Your task to perform on an android device: Clear the cart on ebay.com. Search for razer naga on ebay.com, select the first entry, add it to the cart, then select checkout. Image 0: 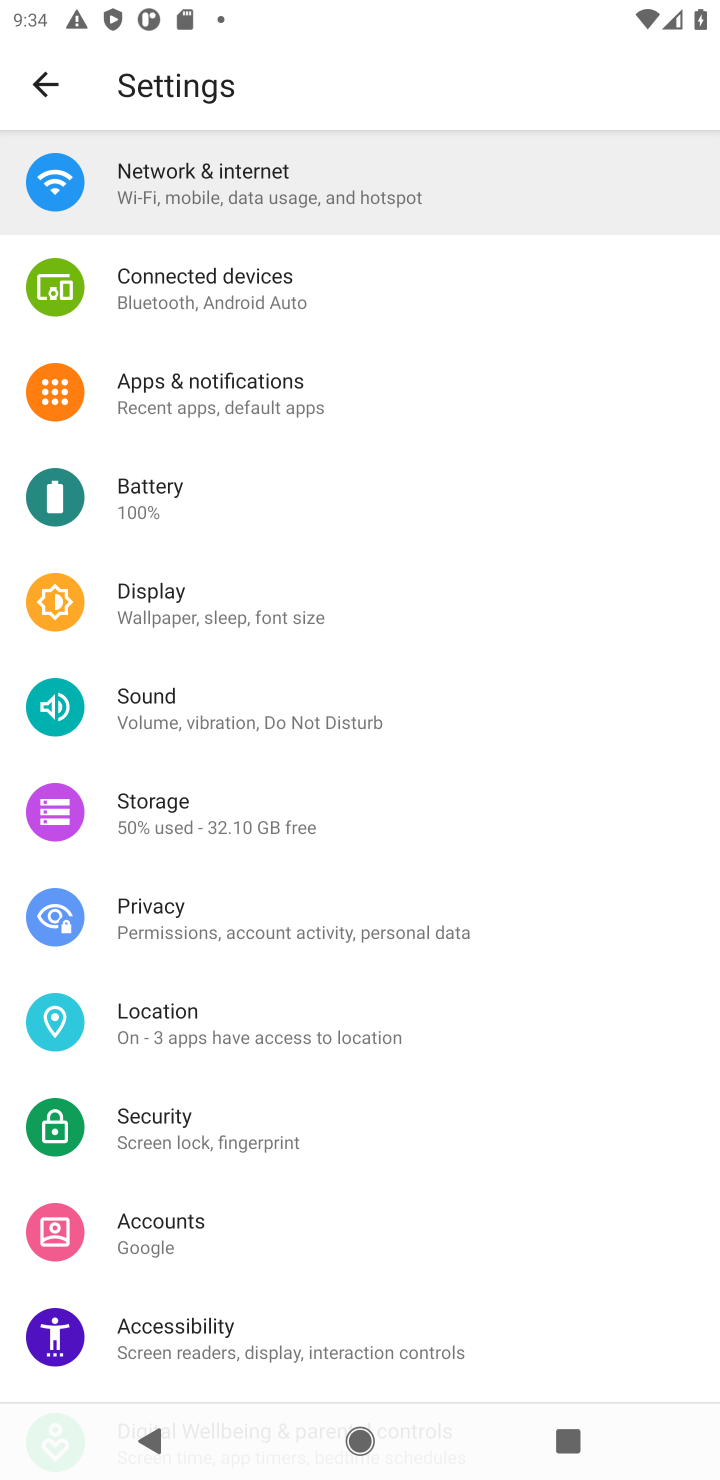
Step 0: press home button
Your task to perform on an android device: Clear the cart on ebay.com. Search for razer naga on ebay.com, select the first entry, add it to the cart, then select checkout. Image 1: 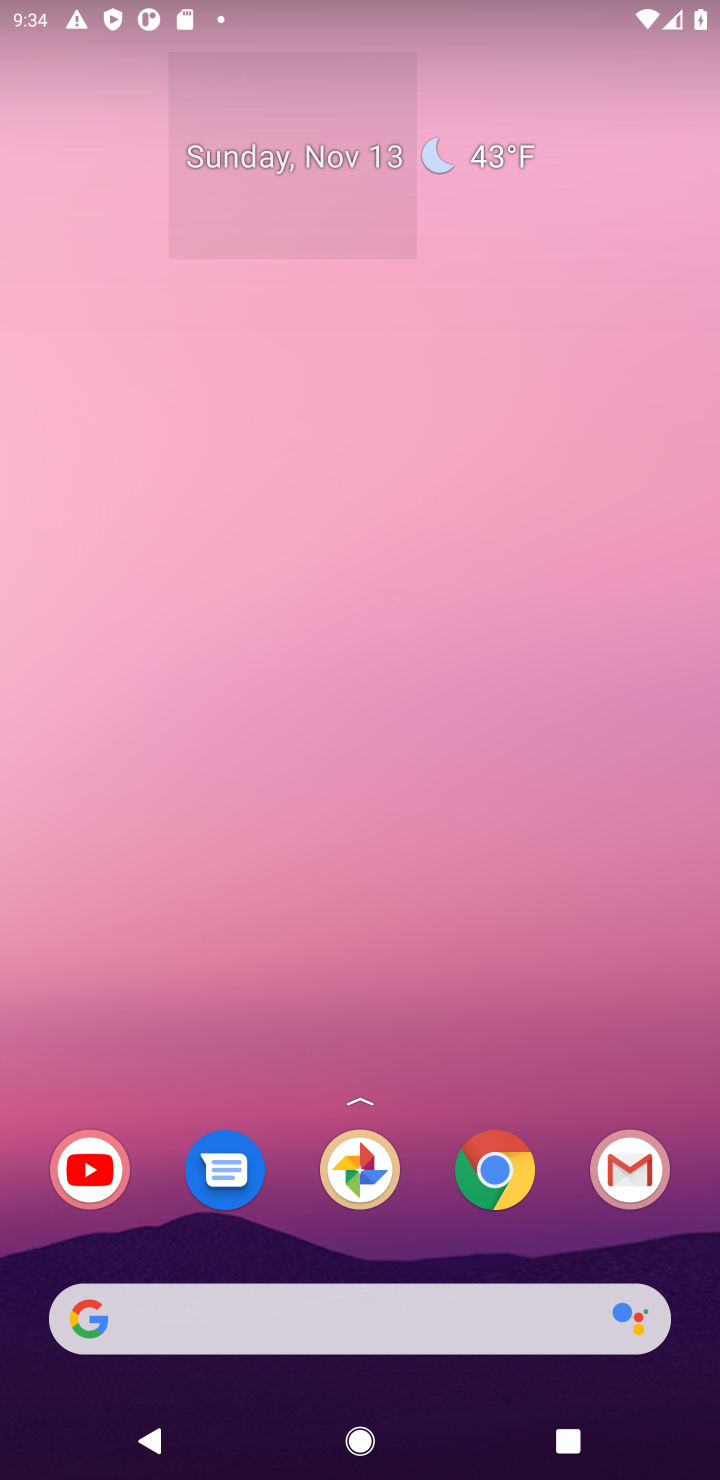
Step 1: drag from (167, 941) to (73, 9)
Your task to perform on an android device: Clear the cart on ebay.com. Search for razer naga on ebay.com, select the first entry, add it to the cart, then select checkout. Image 2: 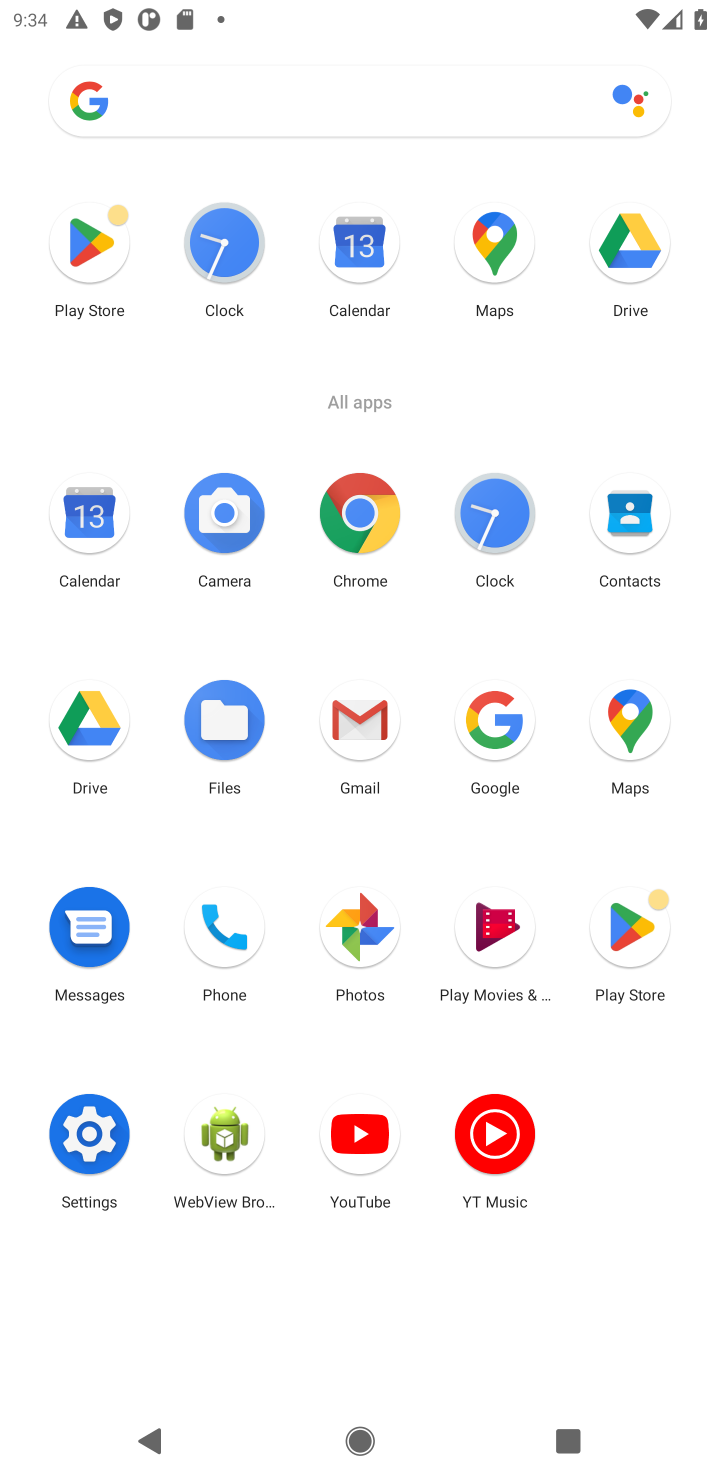
Step 2: click (360, 520)
Your task to perform on an android device: Clear the cart on ebay.com. Search for razer naga on ebay.com, select the first entry, add it to the cart, then select checkout. Image 3: 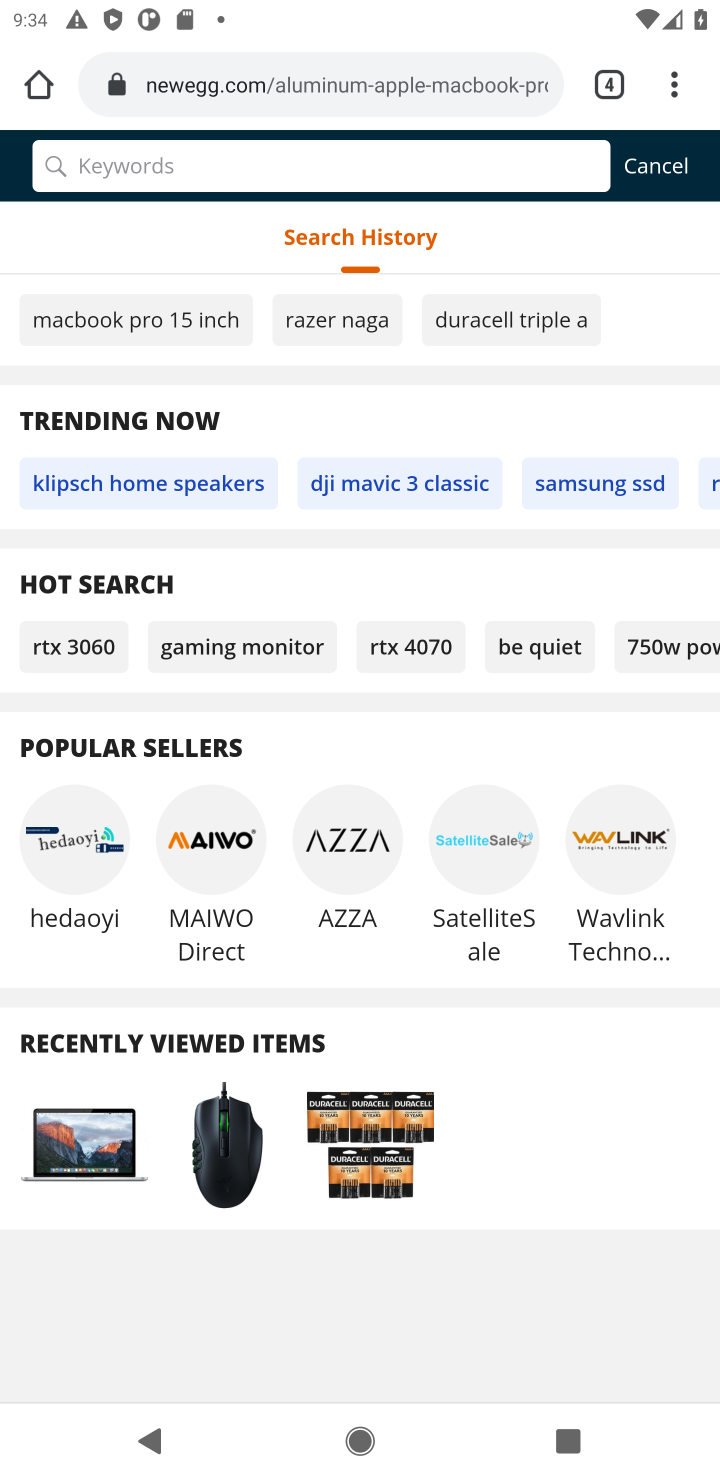
Step 3: click (312, 55)
Your task to perform on an android device: Clear the cart on ebay.com. Search for razer naga on ebay.com, select the first entry, add it to the cart, then select checkout. Image 4: 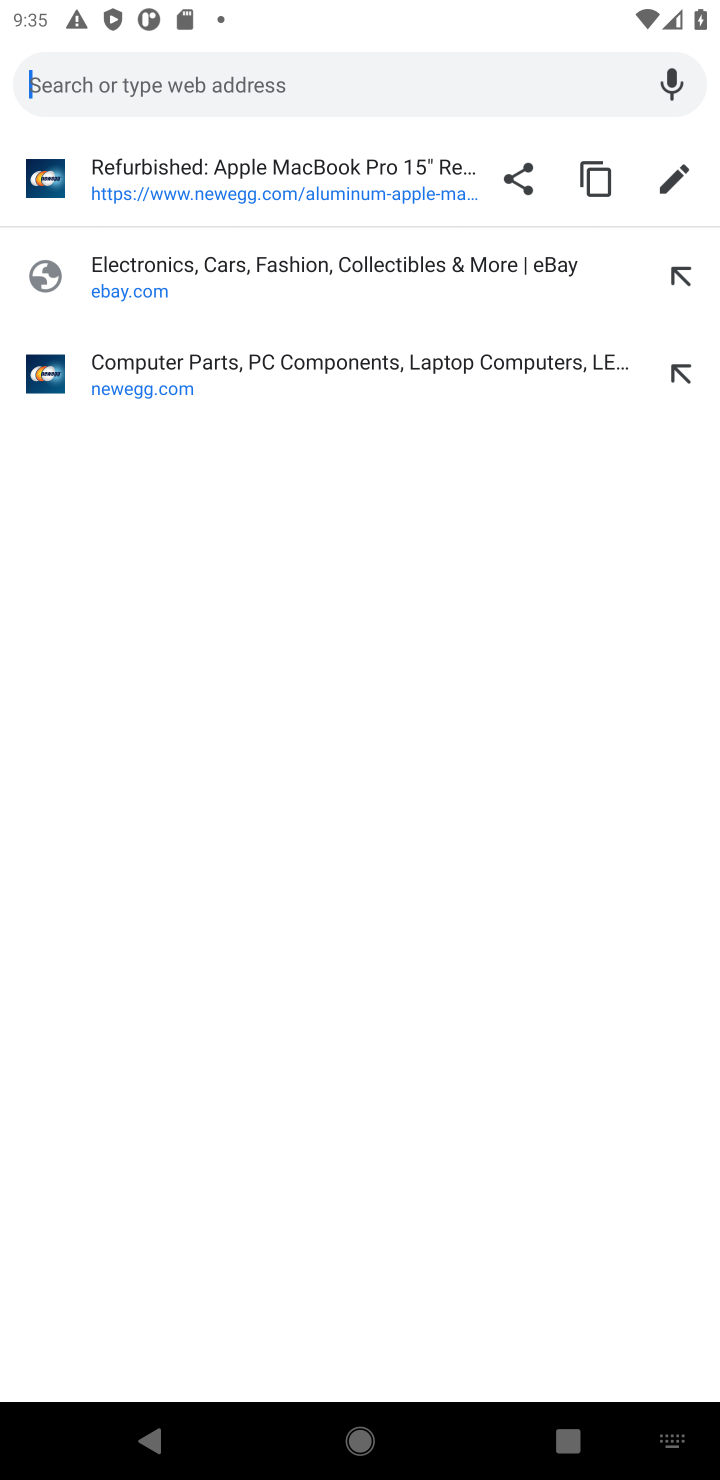
Step 4: type "ebay.com"
Your task to perform on an android device: Clear the cart on ebay.com. Search for razer naga on ebay.com, select the first entry, add it to the cart, then select checkout. Image 5: 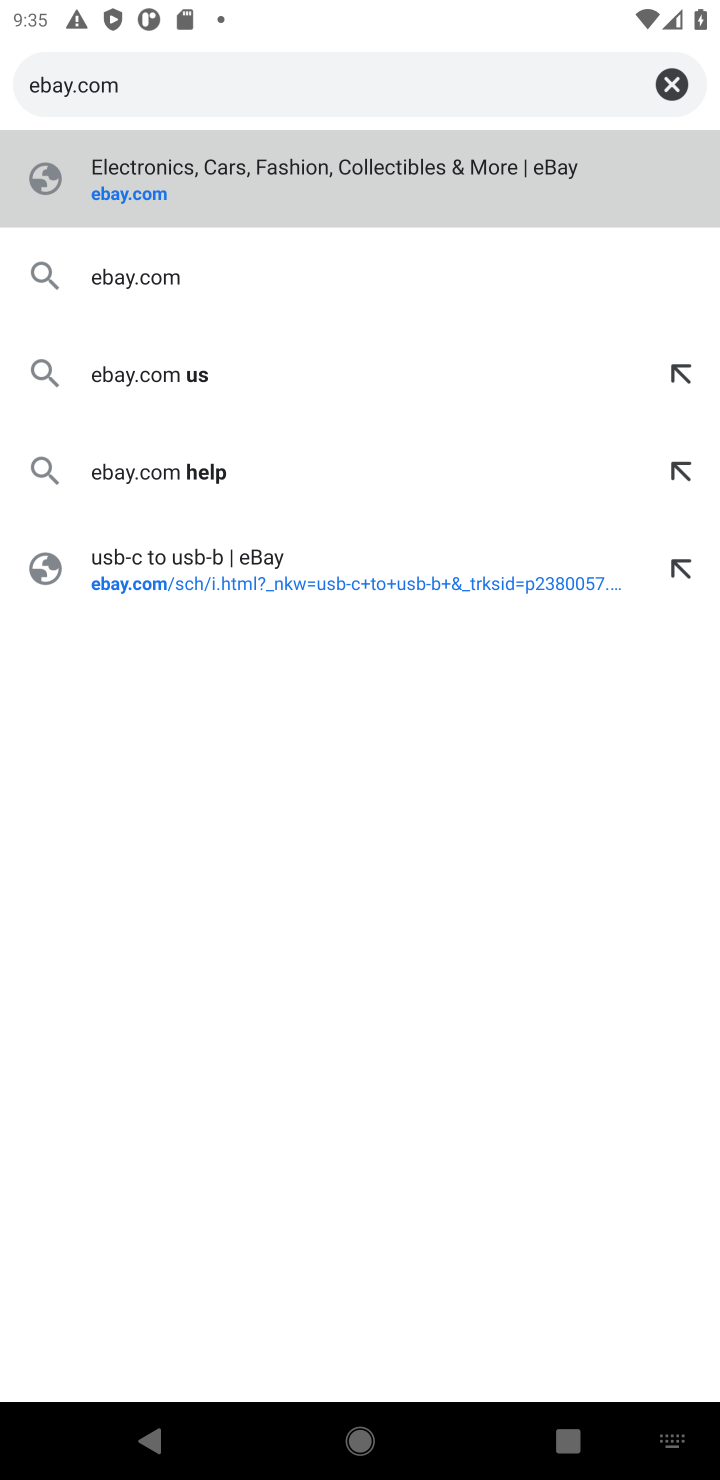
Step 5: press enter
Your task to perform on an android device: Clear the cart on ebay.com. Search for razer naga on ebay.com, select the first entry, add it to the cart, then select checkout. Image 6: 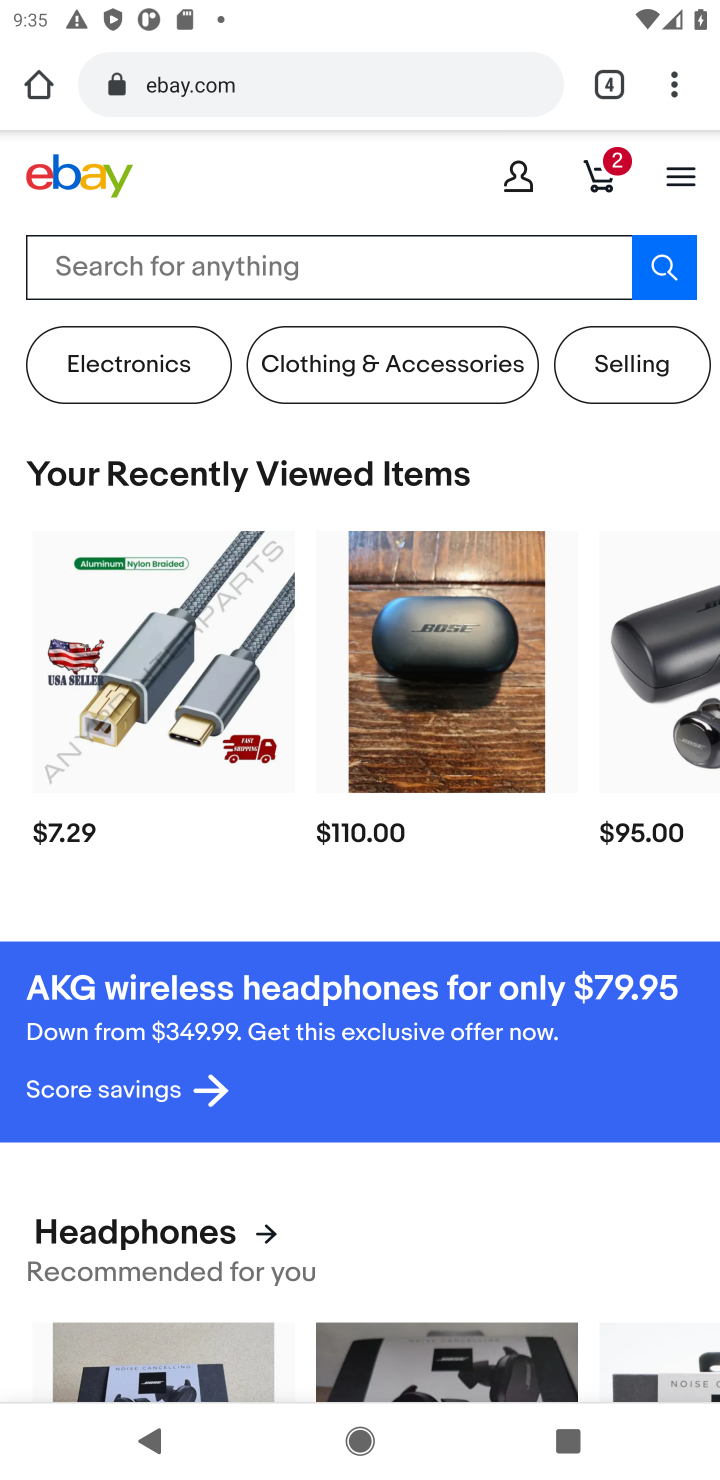
Step 6: click (152, 274)
Your task to perform on an android device: Clear the cart on ebay.com. Search for razer naga on ebay.com, select the first entry, add it to the cart, then select checkout. Image 7: 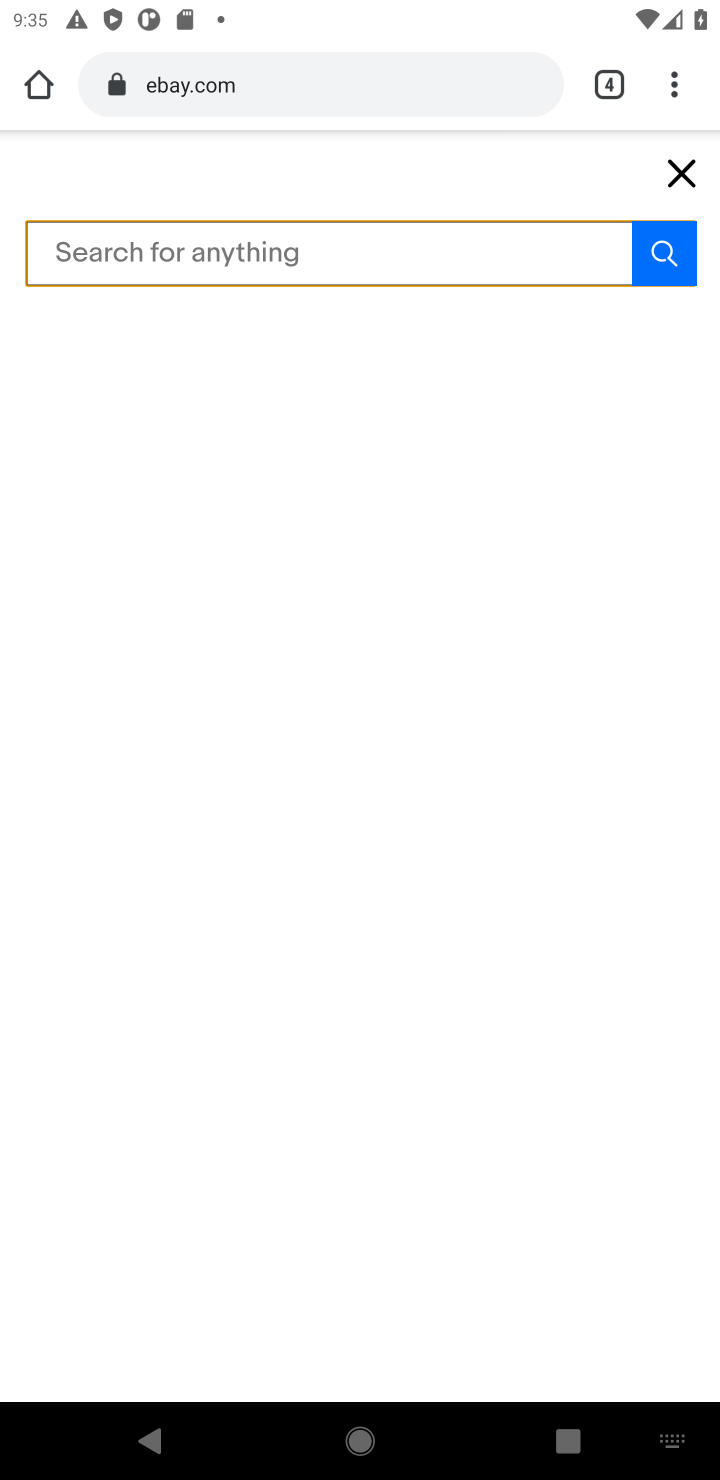
Step 7: type "razer naga "
Your task to perform on an android device: Clear the cart on ebay.com. Search for razer naga on ebay.com, select the first entry, add it to the cart, then select checkout. Image 8: 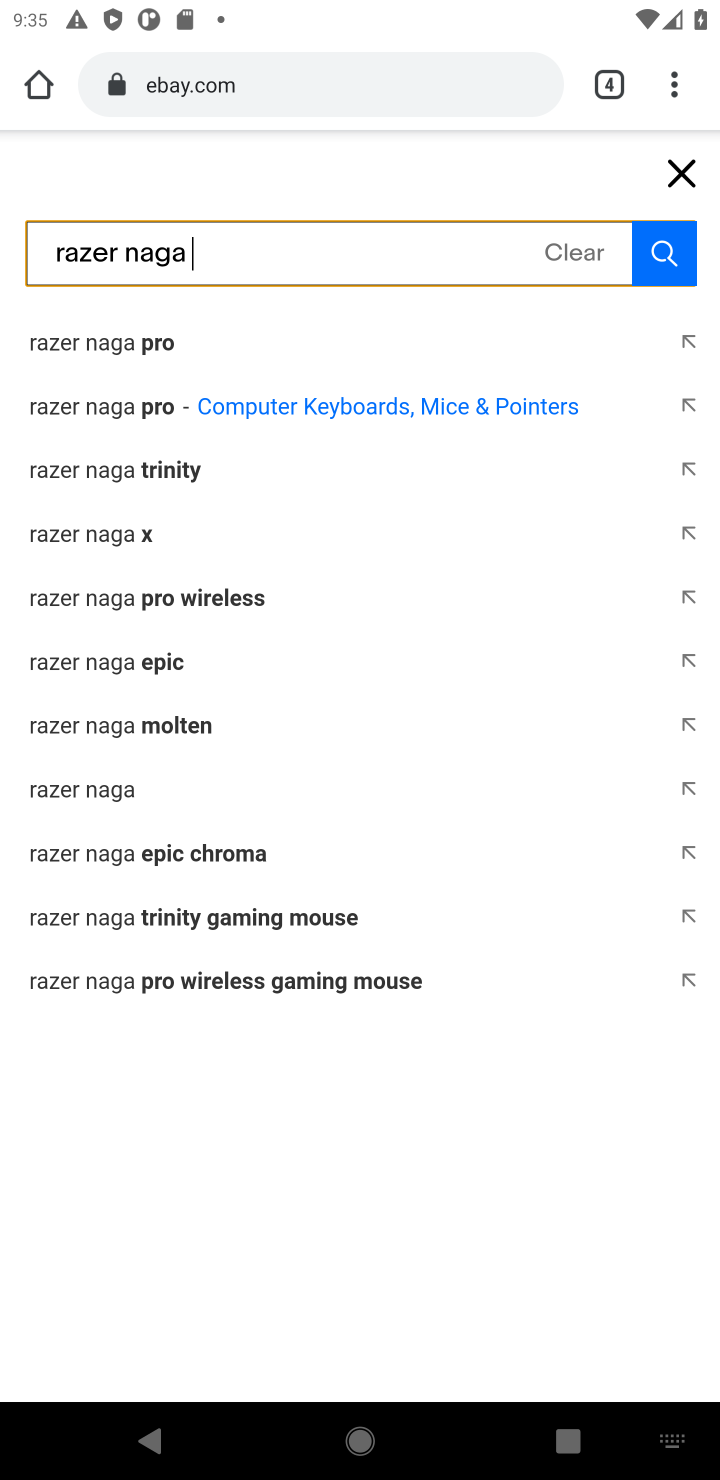
Step 8: press enter
Your task to perform on an android device: Clear the cart on ebay.com. Search for razer naga on ebay.com, select the first entry, add it to the cart, then select checkout. Image 9: 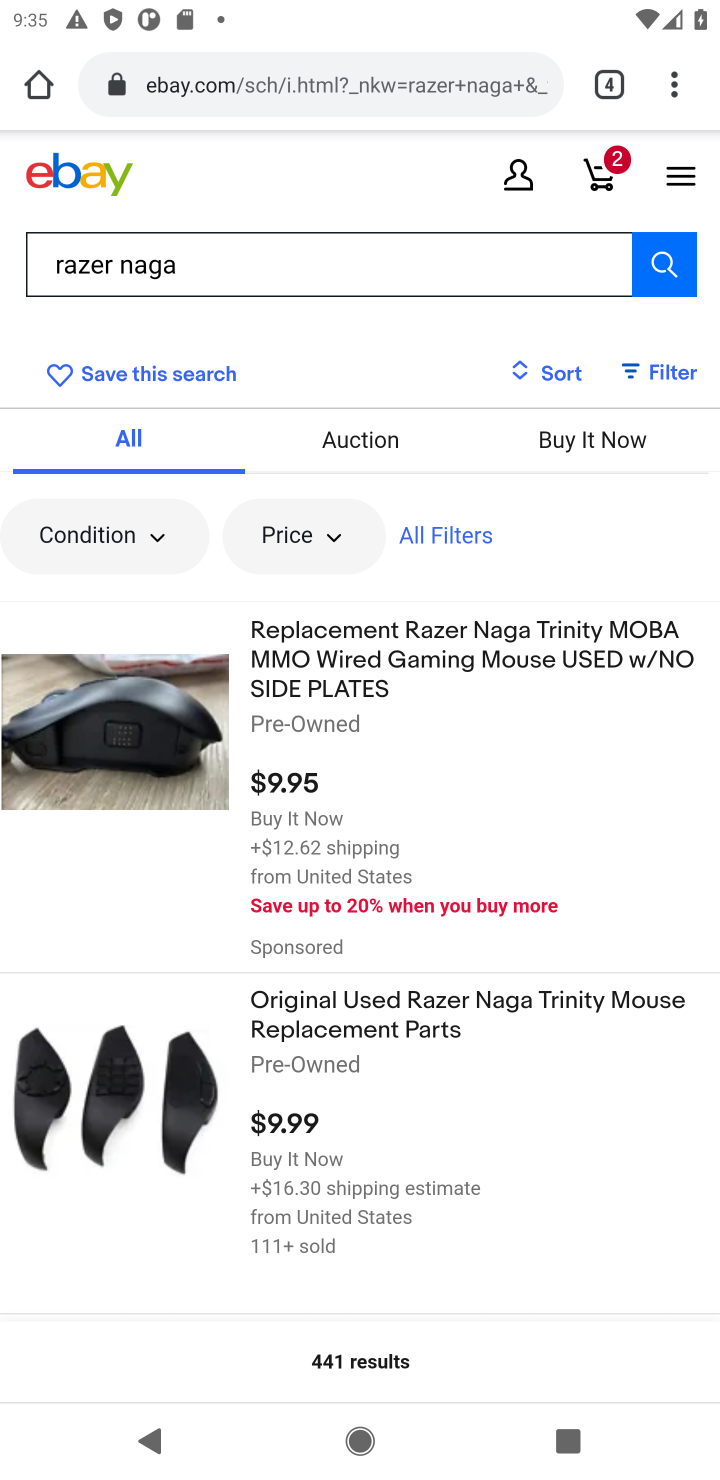
Step 9: click (354, 659)
Your task to perform on an android device: Clear the cart on ebay.com. Search for razer naga on ebay.com, select the first entry, add it to the cart, then select checkout. Image 10: 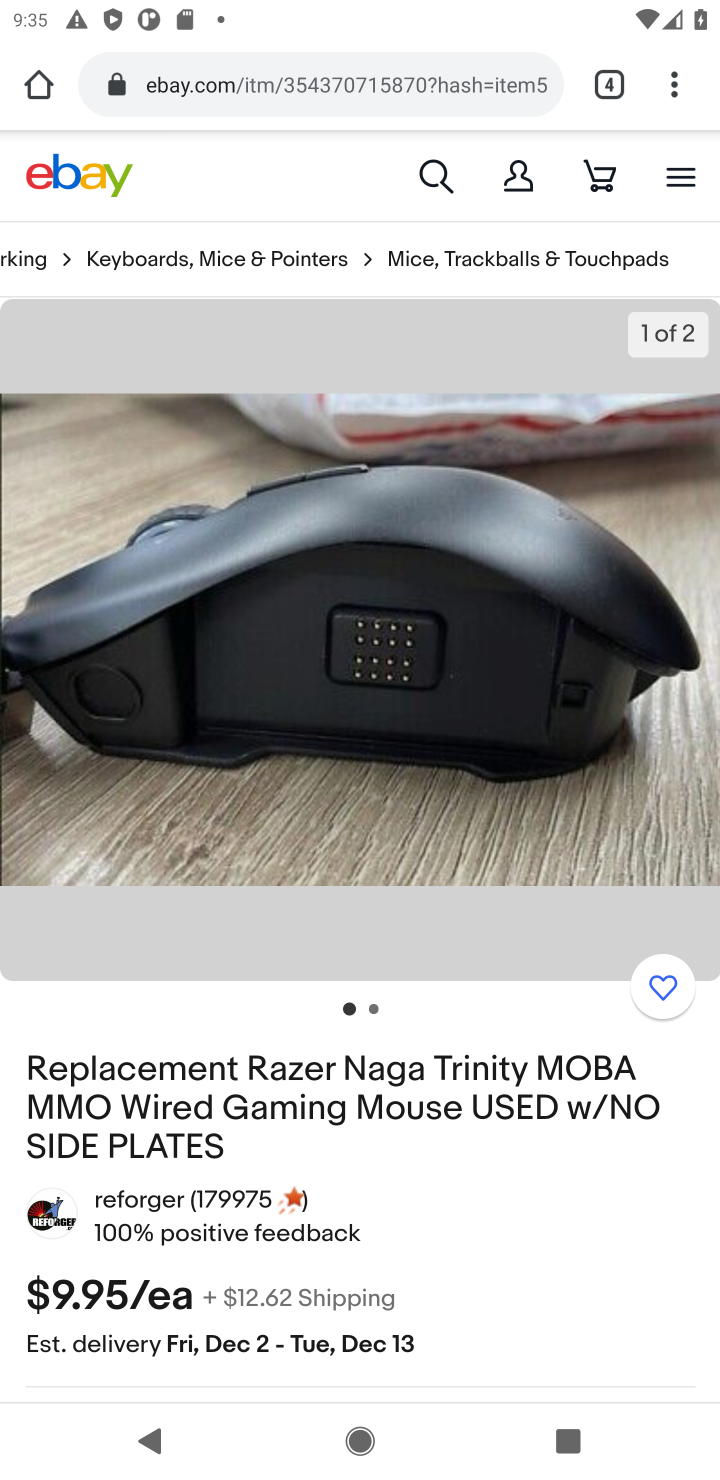
Step 10: drag from (367, 1184) to (397, 613)
Your task to perform on an android device: Clear the cart on ebay.com. Search for razer naga on ebay.com, select the first entry, add it to the cart, then select checkout. Image 11: 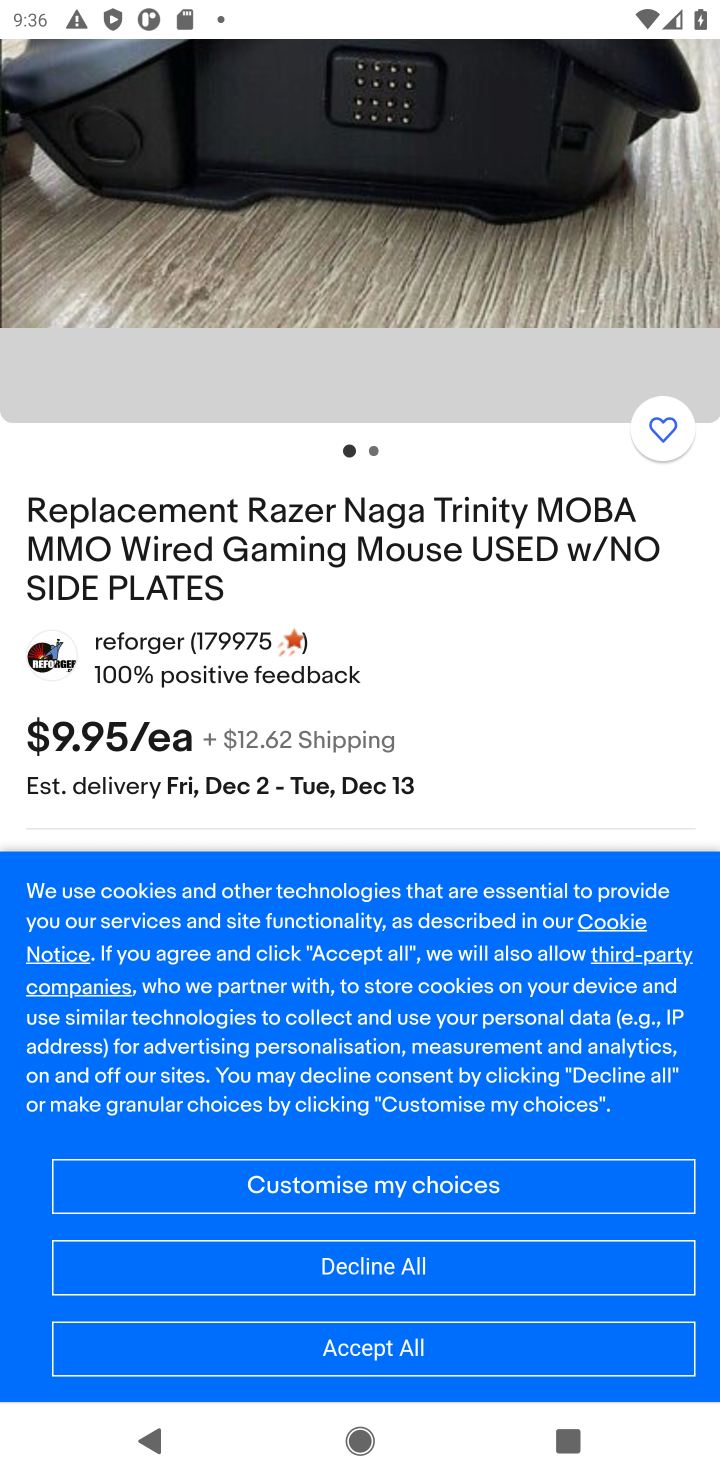
Step 11: click (418, 1370)
Your task to perform on an android device: Clear the cart on ebay.com. Search for razer naga on ebay.com, select the first entry, add it to the cart, then select checkout. Image 12: 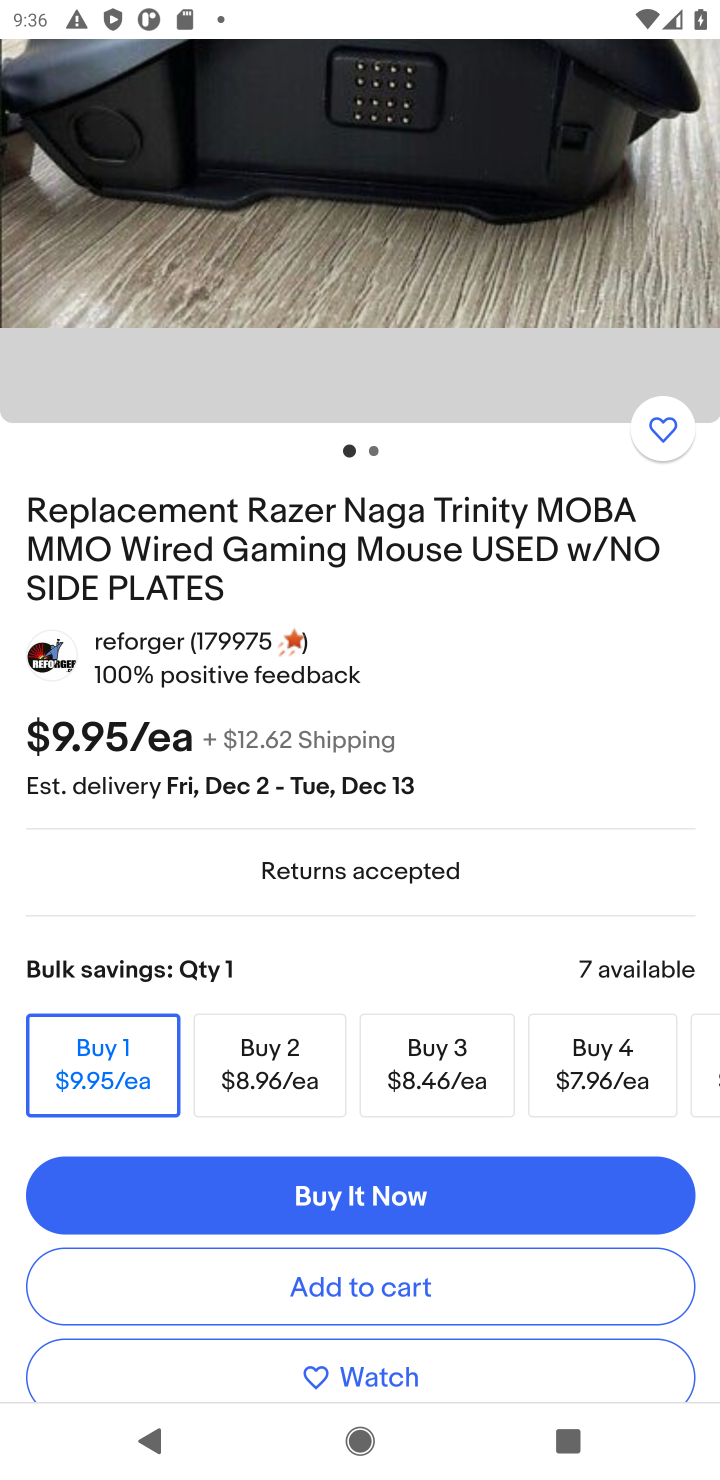
Step 12: click (401, 1284)
Your task to perform on an android device: Clear the cart on ebay.com. Search for razer naga on ebay.com, select the first entry, add it to the cart, then select checkout. Image 13: 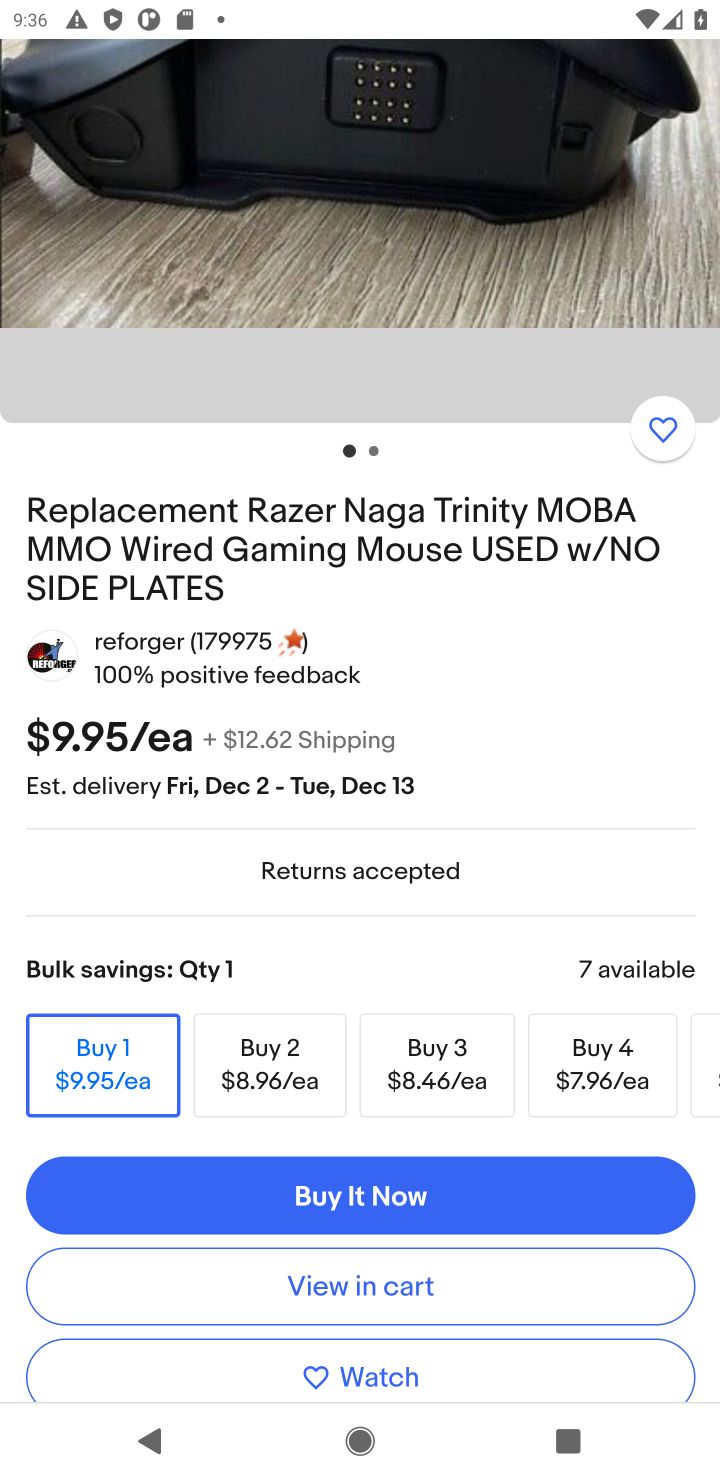
Step 13: click (418, 1281)
Your task to perform on an android device: Clear the cart on ebay.com. Search for razer naga on ebay.com, select the first entry, add it to the cart, then select checkout. Image 14: 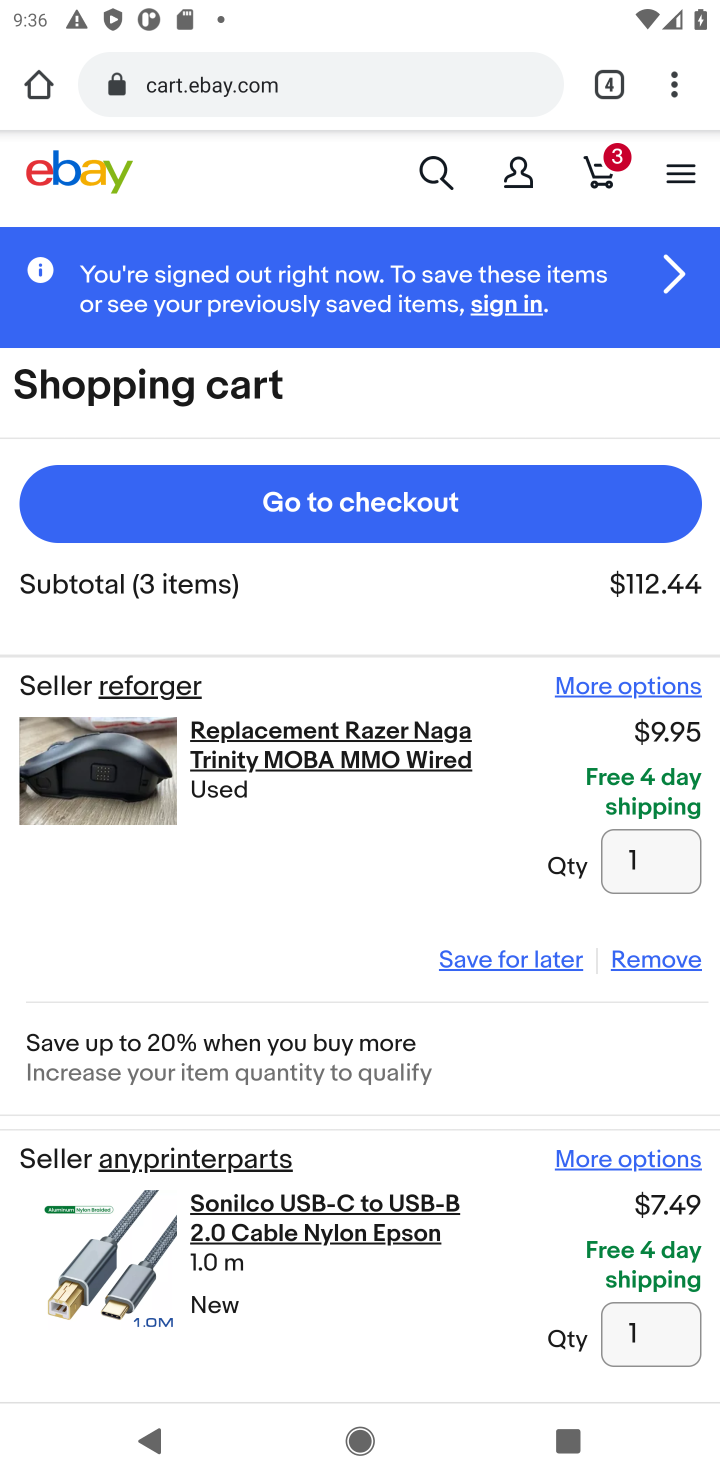
Step 14: click (366, 490)
Your task to perform on an android device: Clear the cart on ebay.com. Search for razer naga on ebay.com, select the first entry, add it to the cart, then select checkout. Image 15: 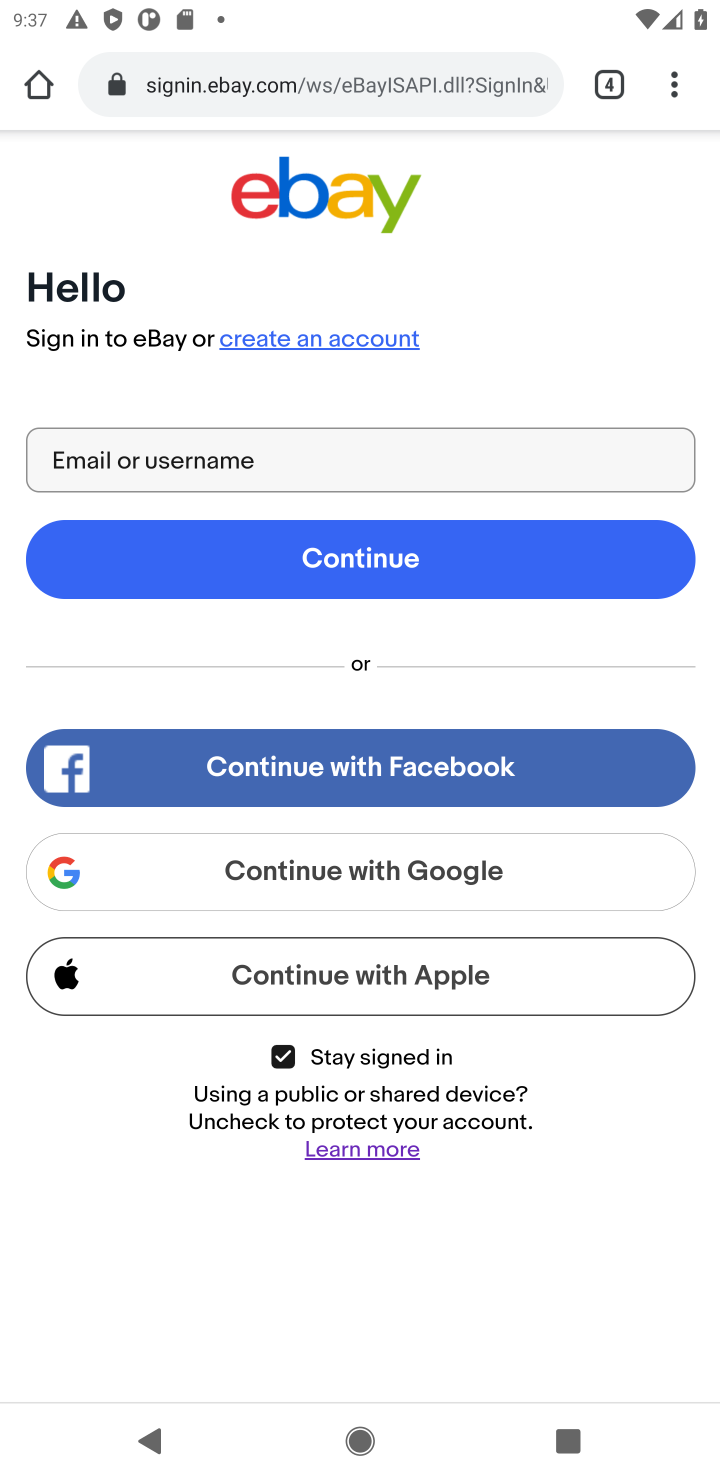
Step 15: task complete